Your task to perform on an android device: Open the map Image 0: 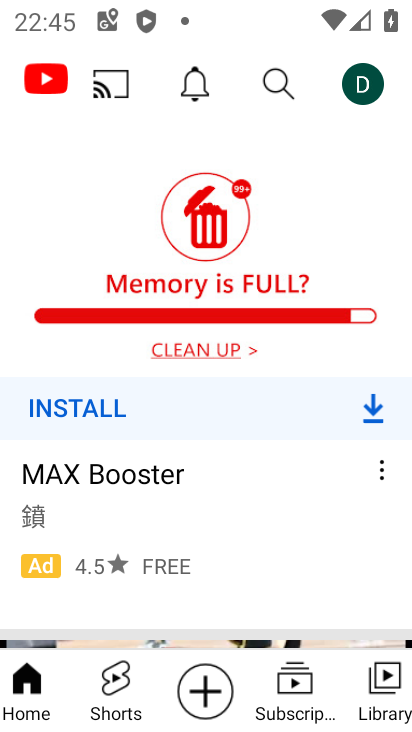
Step 0: task complete